Your task to perform on an android device: toggle show notifications on the lock screen Image 0: 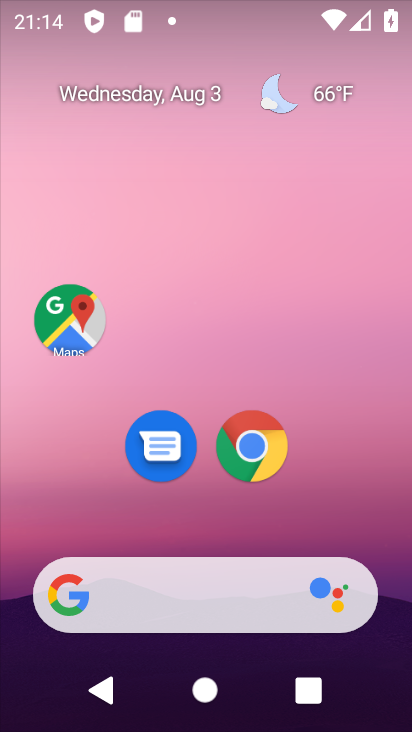
Step 0: drag from (373, 700) to (299, 139)
Your task to perform on an android device: toggle show notifications on the lock screen Image 1: 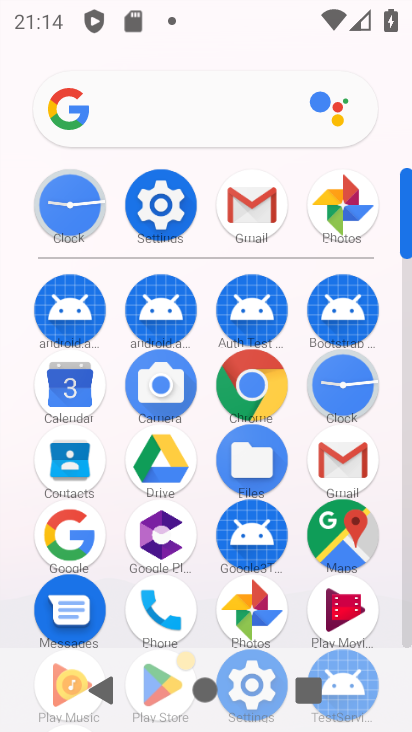
Step 1: click (154, 196)
Your task to perform on an android device: toggle show notifications on the lock screen Image 2: 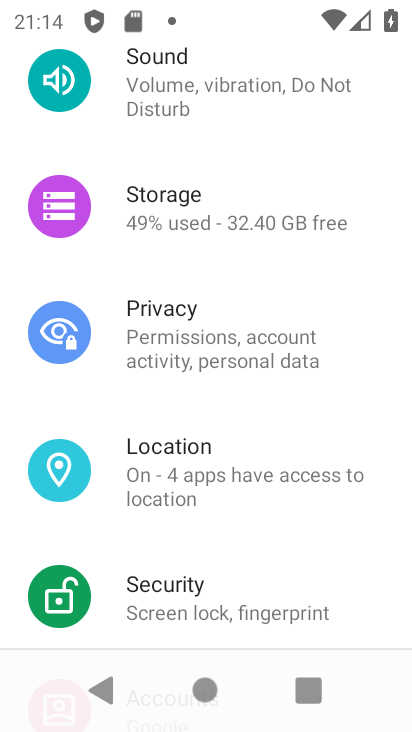
Step 2: drag from (228, 132) to (279, 463)
Your task to perform on an android device: toggle show notifications on the lock screen Image 3: 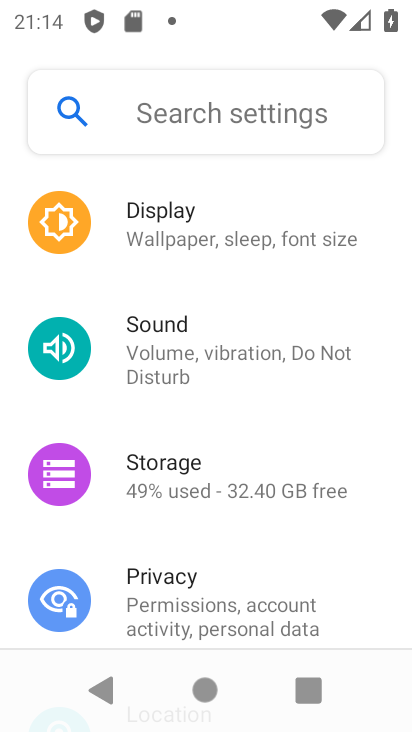
Step 3: drag from (244, 205) to (270, 527)
Your task to perform on an android device: toggle show notifications on the lock screen Image 4: 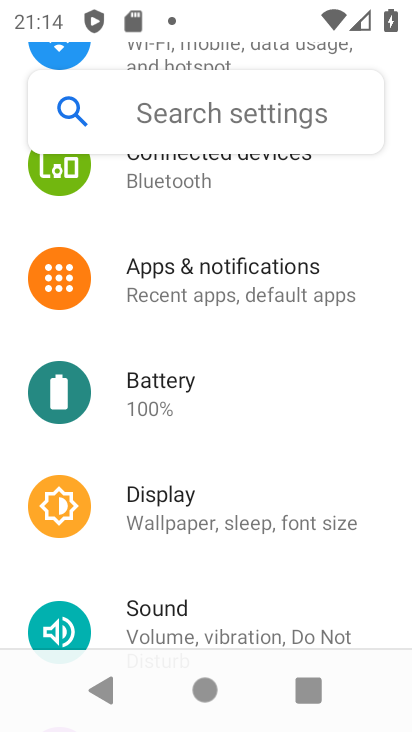
Step 4: click (234, 284)
Your task to perform on an android device: toggle show notifications on the lock screen Image 5: 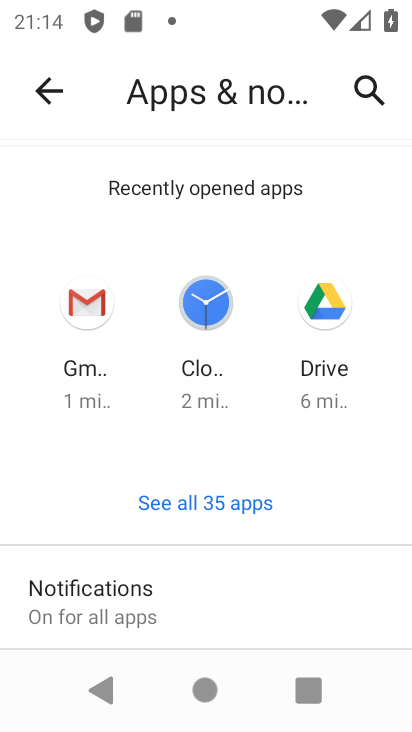
Step 5: drag from (285, 605) to (251, 182)
Your task to perform on an android device: toggle show notifications on the lock screen Image 6: 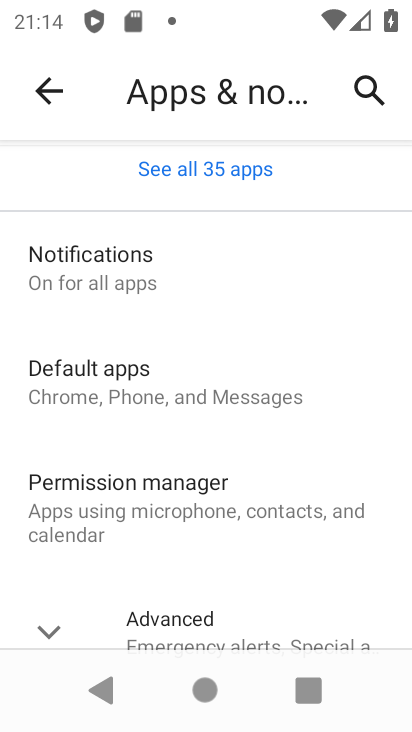
Step 6: drag from (272, 602) to (247, 301)
Your task to perform on an android device: toggle show notifications on the lock screen Image 7: 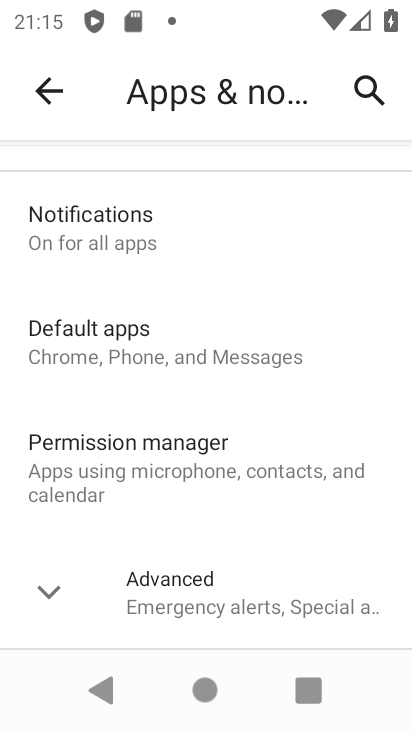
Step 7: drag from (313, 528) to (318, 325)
Your task to perform on an android device: toggle show notifications on the lock screen Image 8: 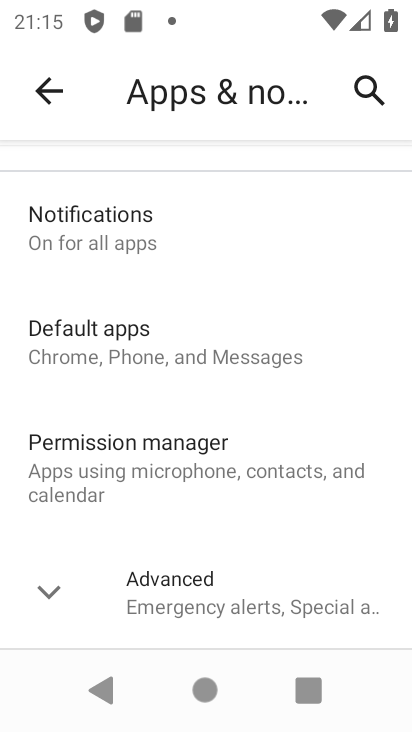
Step 8: click (48, 591)
Your task to perform on an android device: toggle show notifications on the lock screen Image 9: 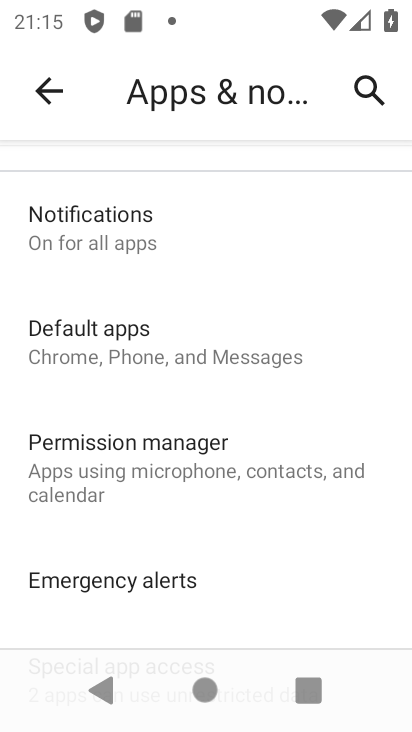
Step 9: drag from (340, 592) to (321, 274)
Your task to perform on an android device: toggle show notifications on the lock screen Image 10: 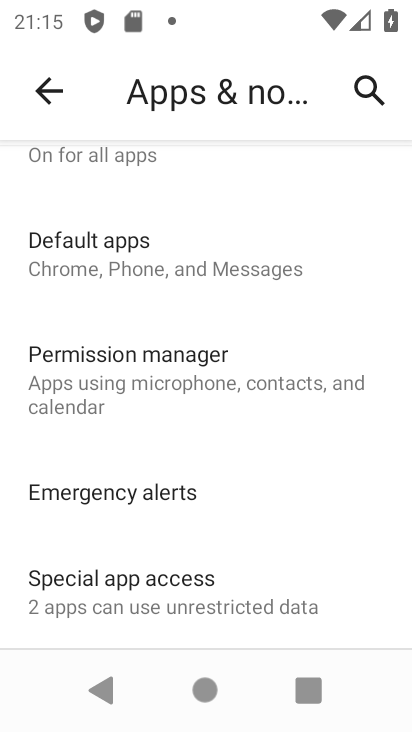
Step 10: drag from (267, 190) to (310, 582)
Your task to perform on an android device: toggle show notifications on the lock screen Image 11: 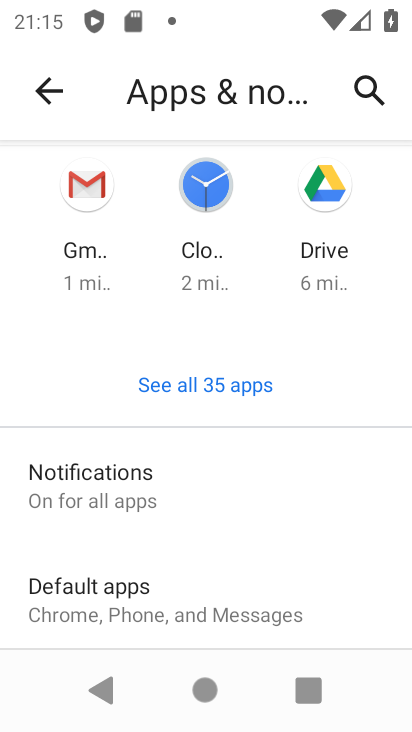
Step 11: drag from (255, 584) to (261, 297)
Your task to perform on an android device: toggle show notifications on the lock screen Image 12: 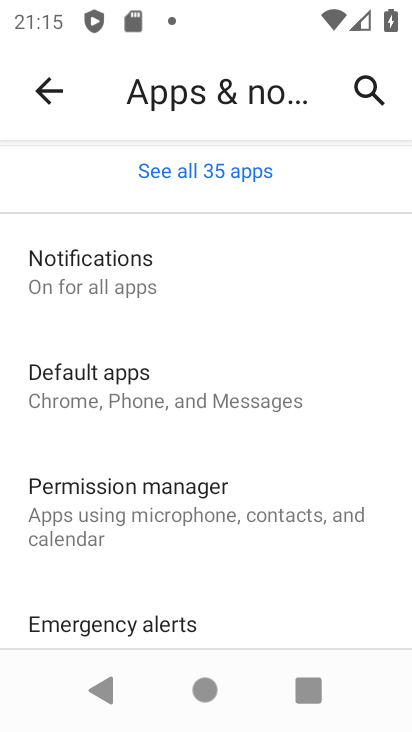
Step 12: click (99, 272)
Your task to perform on an android device: toggle show notifications on the lock screen Image 13: 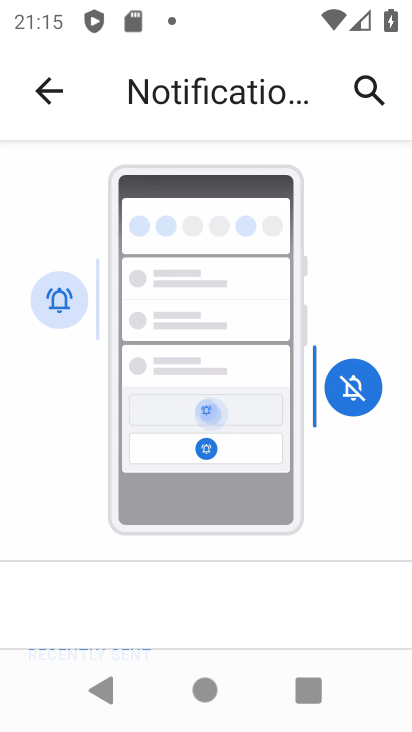
Step 13: drag from (223, 618) to (191, 143)
Your task to perform on an android device: toggle show notifications on the lock screen Image 14: 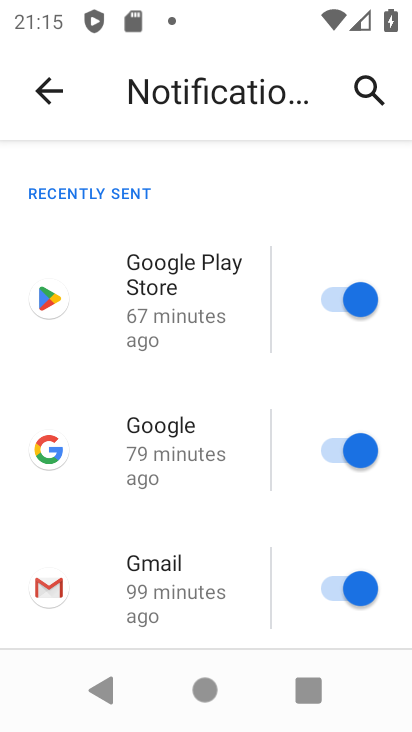
Step 14: drag from (215, 600) to (188, 276)
Your task to perform on an android device: toggle show notifications on the lock screen Image 15: 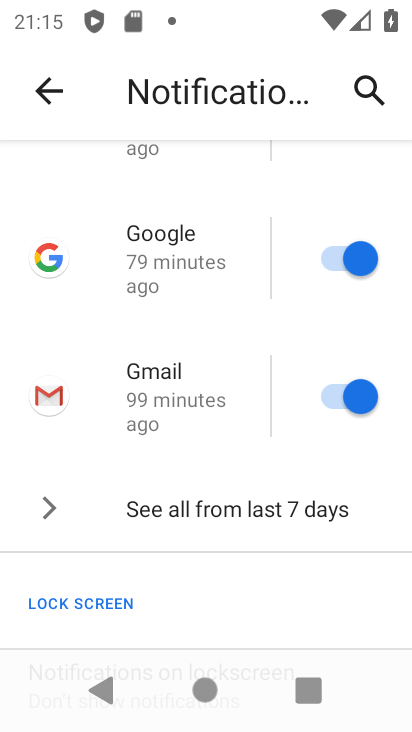
Step 15: click (98, 601)
Your task to perform on an android device: toggle show notifications on the lock screen Image 16: 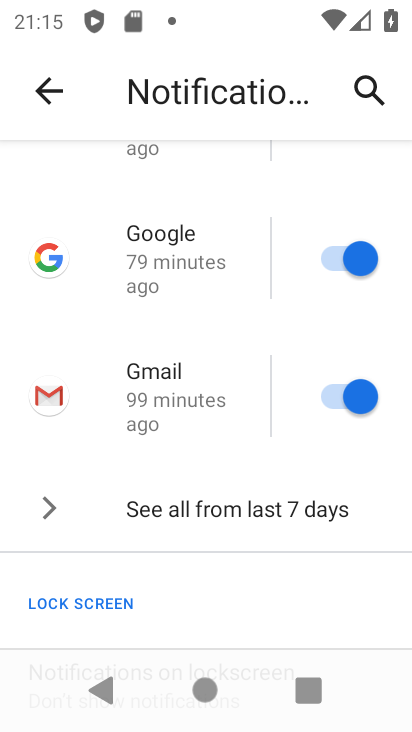
Step 16: drag from (210, 619) to (213, 323)
Your task to perform on an android device: toggle show notifications on the lock screen Image 17: 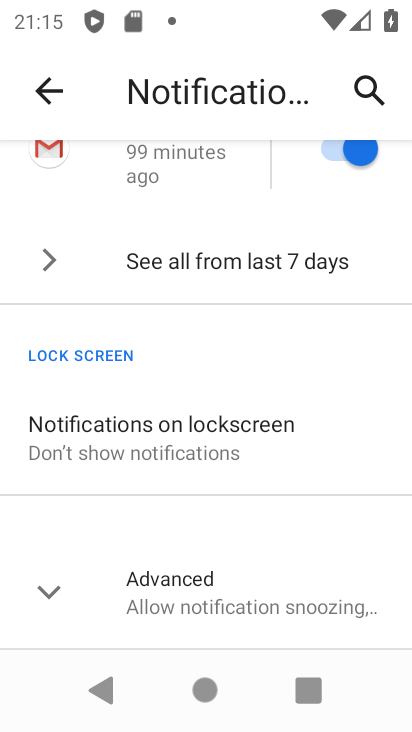
Step 17: click (82, 445)
Your task to perform on an android device: toggle show notifications on the lock screen Image 18: 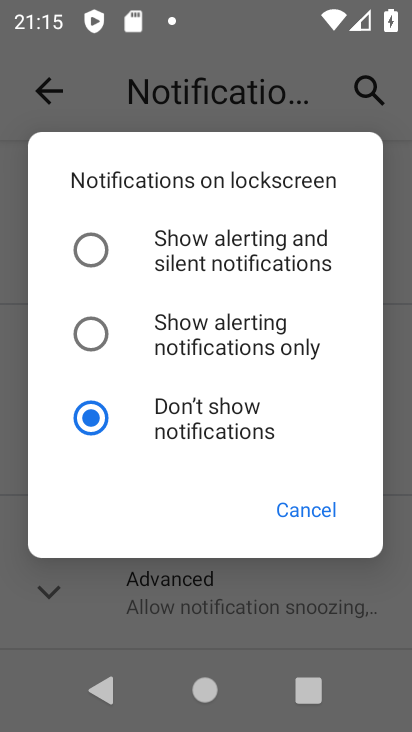
Step 18: click (93, 250)
Your task to perform on an android device: toggle show notifications on the lock screen Image 19: 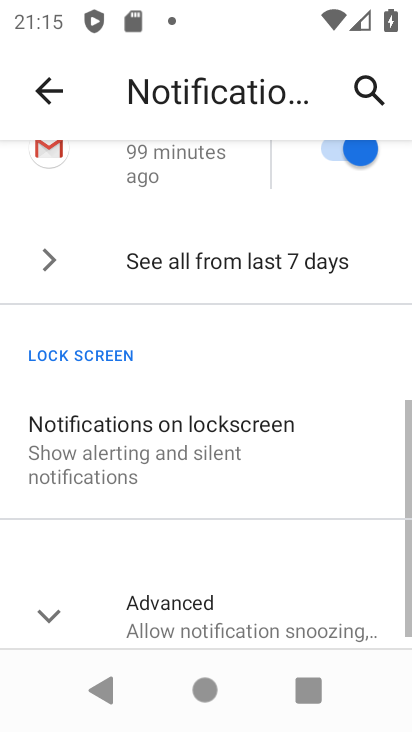
Step 19: task complete